Your task to perform on an android device: turn on wifi Image 0: 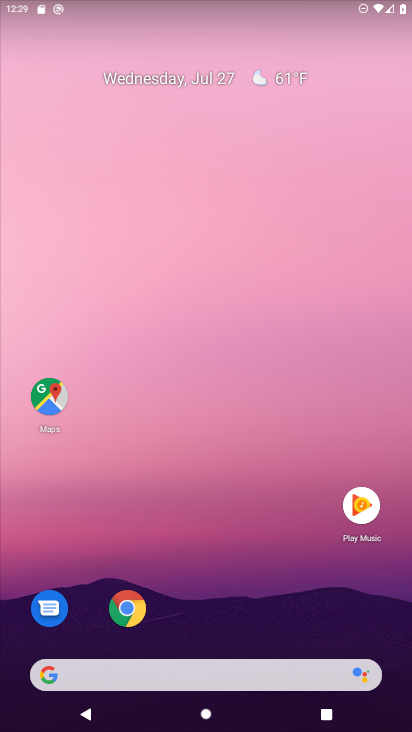
Step 0: drag from (293, 561) to (329, 162)
Your task to perform on an android device: turn on wifi Image 1: 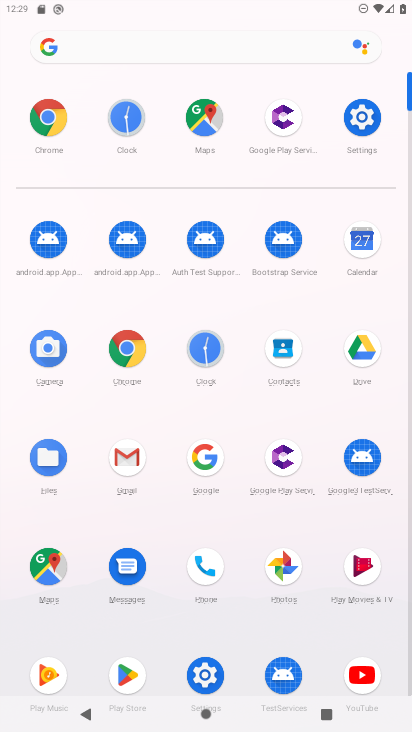
Step 1: click (361, 122)
Your task to perform on an android device: turn on wifi Image 2: 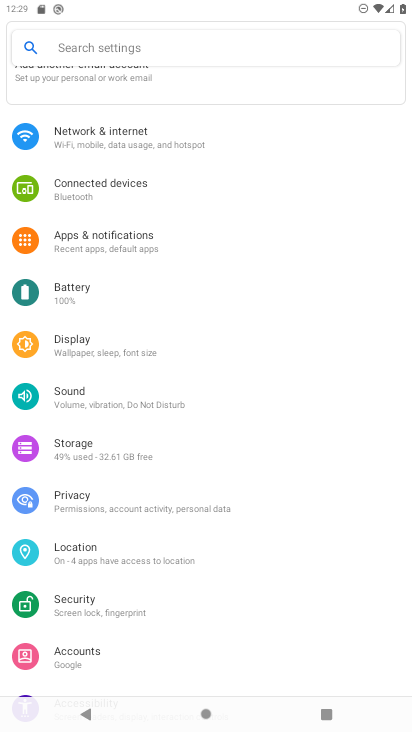
Step 2: drag from (330, 464) to (333, 388)
Your task to perform on an android device: turn on wifi Image 3: 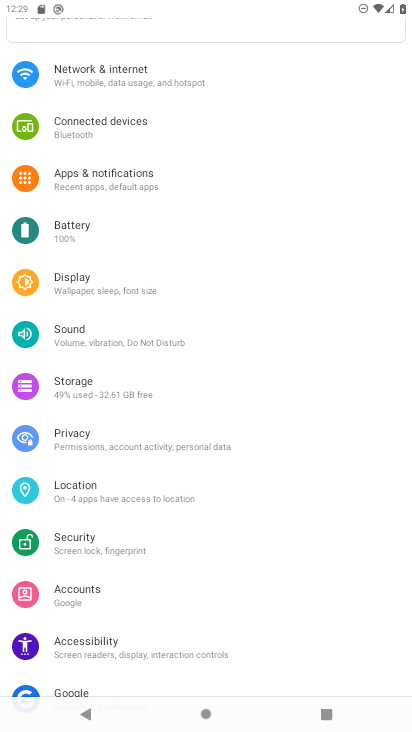
Step 3: drag from (336, 514) to (337, 424)
Your task to perform on an android device: turn on wifi Image 4: 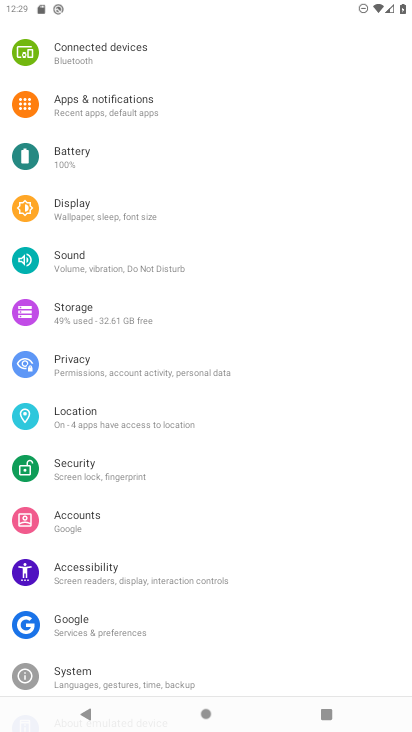
Step 4: drag from (324, 525) to (327, 451)
Your task to perform on an android device: turn on wifi Image 5: 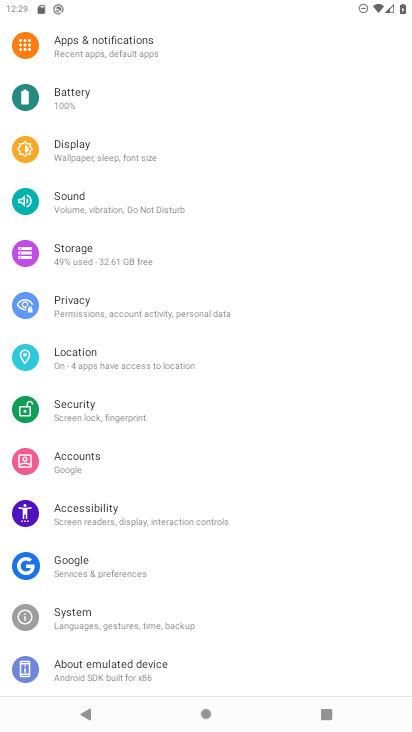
Step 5: drag from (308, 589) to (310, 513)
Your task to perform on an android device: turn on wifi Image 6: 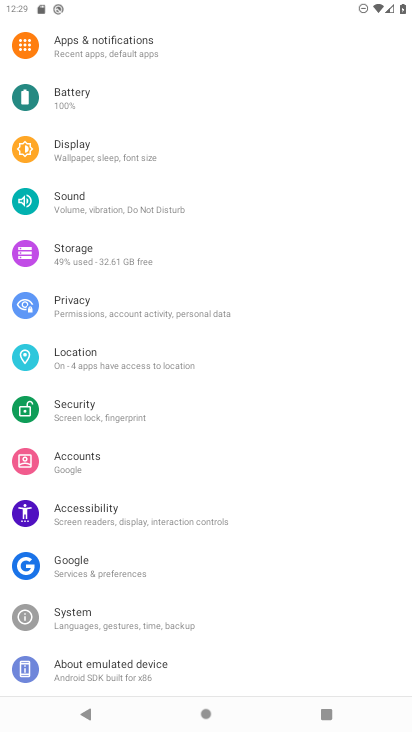
Step 6: drag from (313, 369) to (315, 457)
Your task to perform on an android device: turn on wifi Image 7: 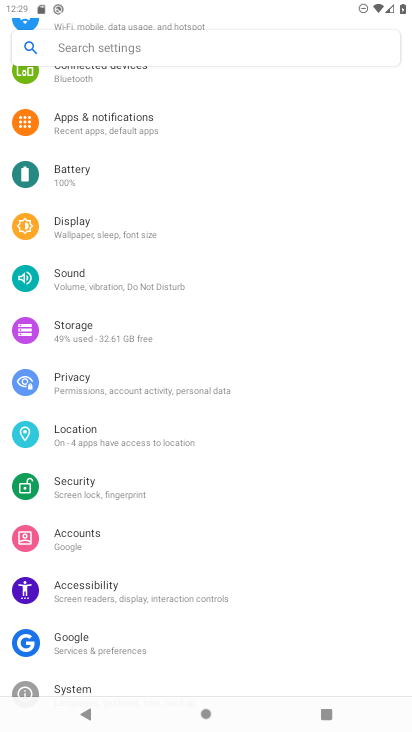
Step 7: drag from (324, 271) to (324, 355)
Your task to perform on an android device: turn on wifi Image 8: 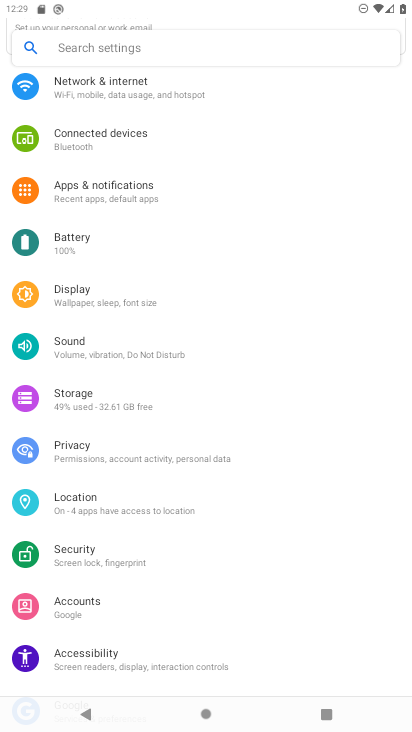
Step 8: drag from (325, 235) to (328, 358)
Your task to perform on an android device: turn on wifi Image 9: 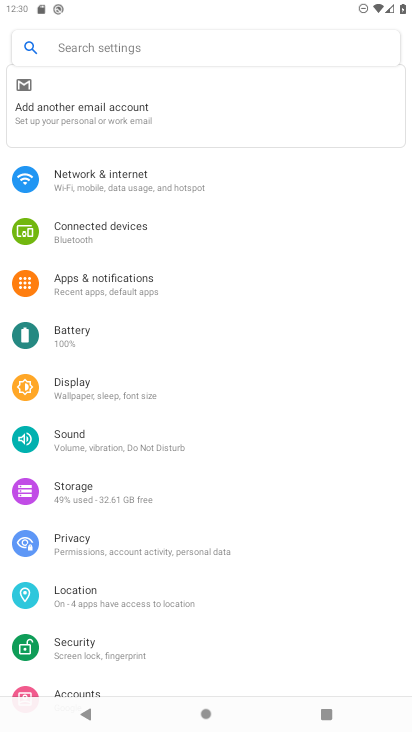
Step 9: drag from (322, 274) to (322, 410)
Your task to perform on an android device: turn on wifi Image 10: 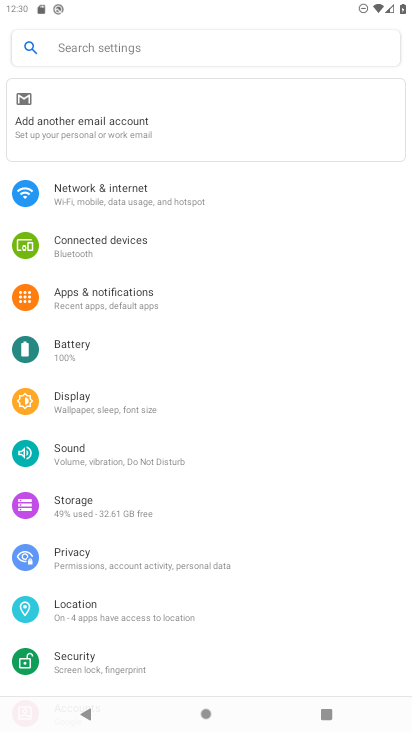
Step 10: drag from (318, 501) to (323, 460)
Your task to perform on an android device: turn on wifi Image 11: 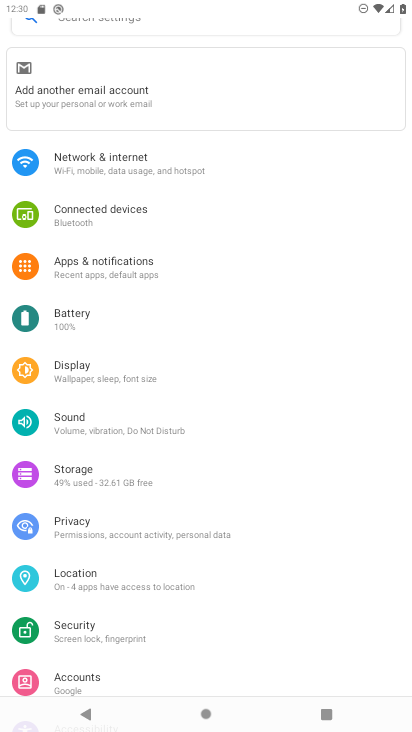
Step 11: drag from (325, 543) to (326, 482)
Your task to perform on an android device: turn on wifi Image 12: 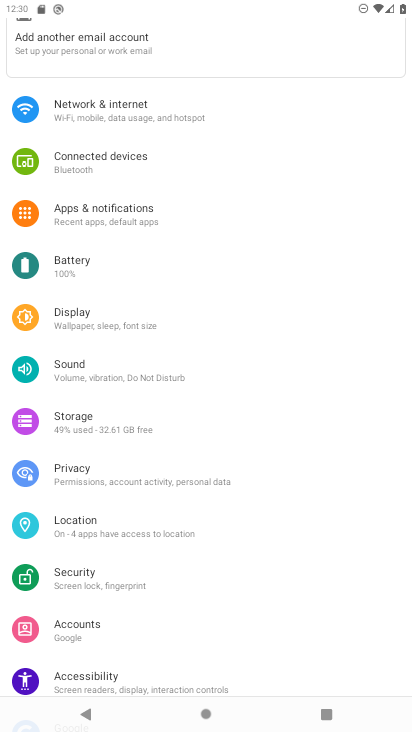
Step 12: drag from (322, 565) to (322, 518)
Your task to perform on an android device: turn on wifi Image 13: 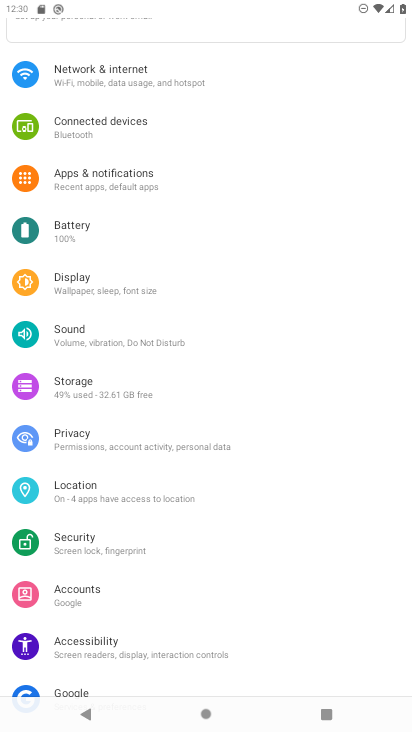
Step 13: drag from (330, 607) to (329, 551)
Your task to perform on an android device: turn on wifi Image 14: 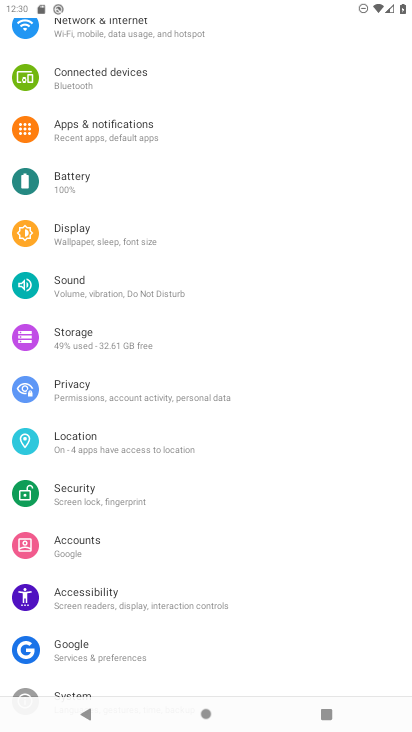
Step 14: drag from (314, 603) to (315, 525)
Your task to perform on an android device: turn on wifi Image 15: 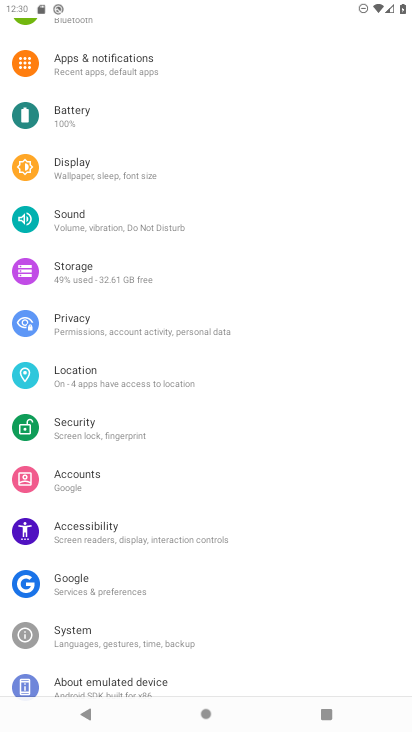
Step 15: drag from (359, 286) to (360, 350)
Your task to perform on an android device: turn on wifi Image 16: 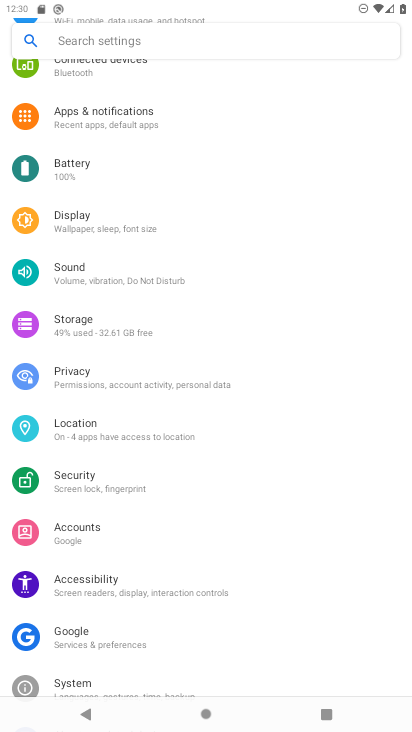
Step 16: drag from (348, 251) to (349, 325)
Your task to perform on an android device: turn on wifi Image 17: 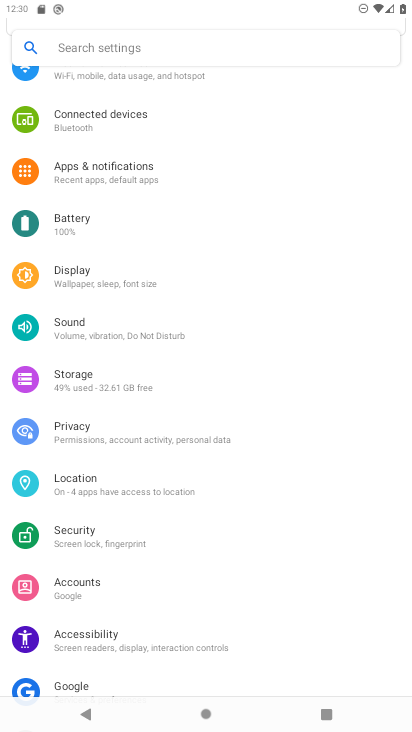
Step 17: drag from (356, 217) to (347, 359)
Your task to perform on an android device: turn on wifi Image 18: 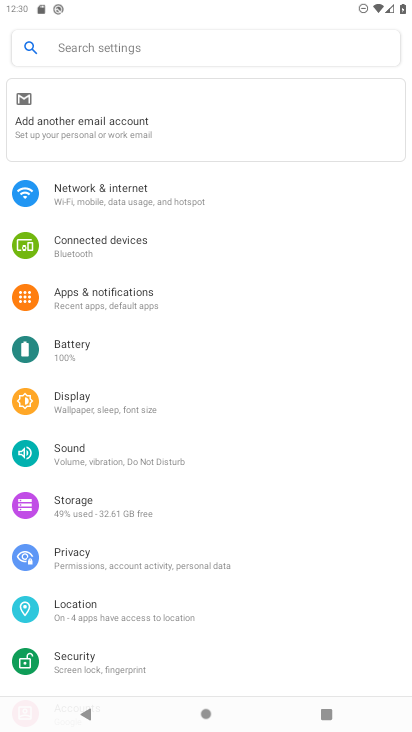
Step 18: drag from (315, 238) to (317, 337)
Your task to perform on an android device: turn on wifi Image 19: 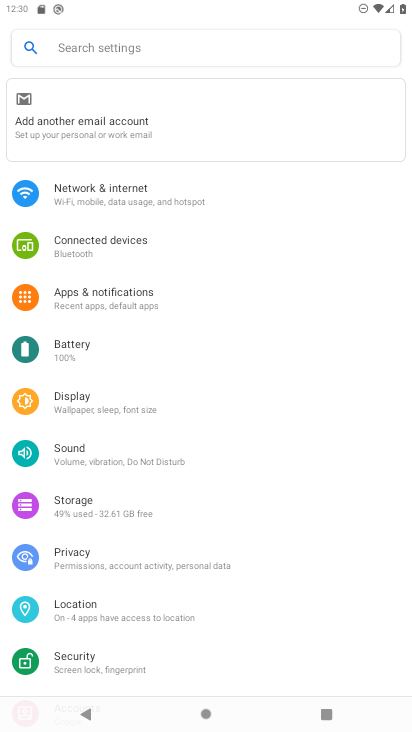
Step 19: click (208, 195)
Your task to perform on an android device: turn on wifi Image 20: 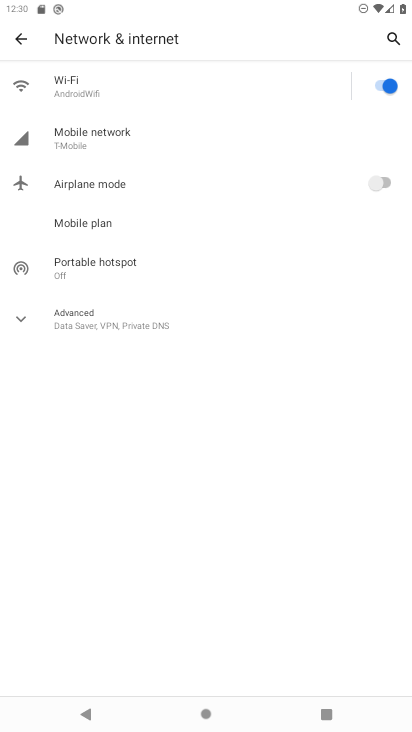
Step 20: task complete